Your task to perform on an android device: turn on improve location accuracy Image 0: 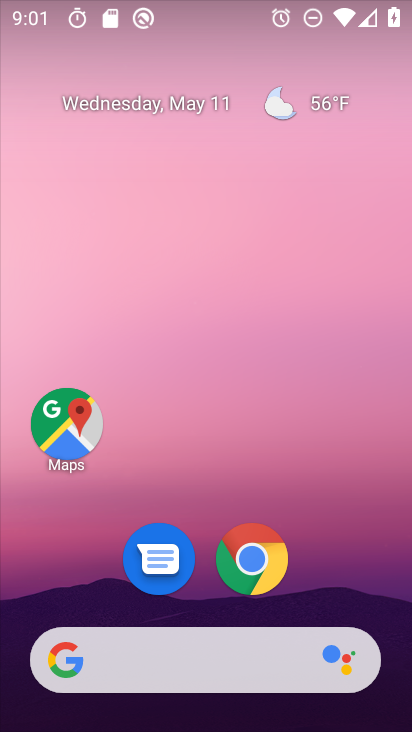
Step 0: drag from (283, 476) to (253, 79)
Your task to perform on an android device: turn on improve location accuracy Image 1: 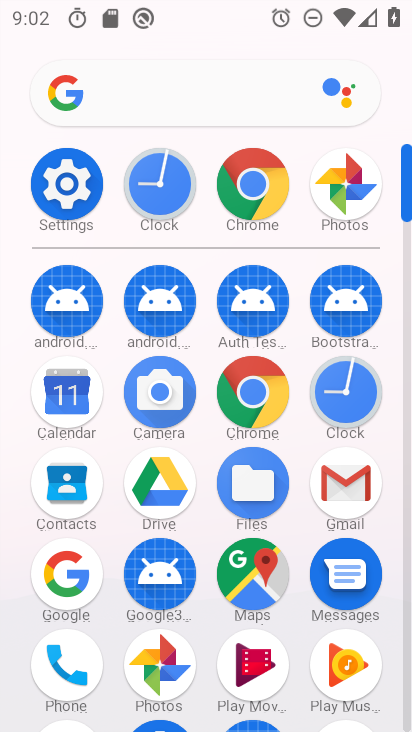
Step 1: click (58, 176)
Your task to perform on an android device: turn on improve location accuracy Image 2: 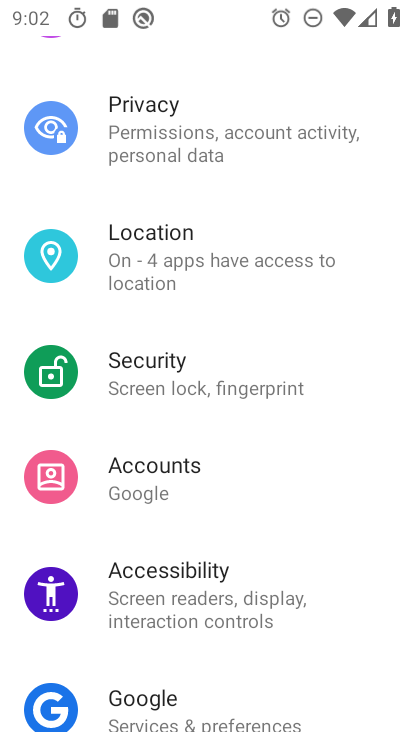
Step 2: click (182, 251)
Your task to perform on an android device: turn on improve location accuracy Image 3: 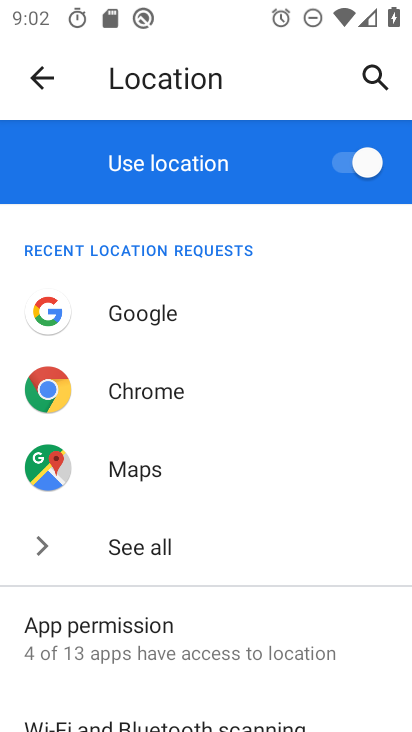
Step 3: drag from (313, 587) to (343, 323)
Your task to perform on an android device: turn on improve location accuracy Image 4: 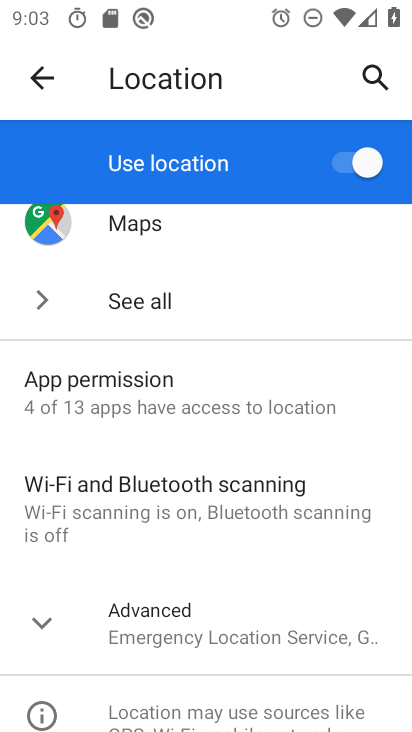
Step 4: click (212, 619)
Your task to perform on an android device: turn on improve location accuracy Image 5: 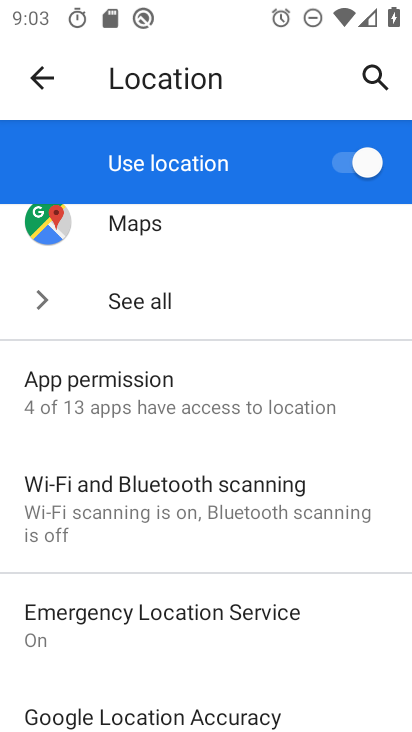
Step 5: drag from (227, 645) to (270, 389)
Your task to perform on an android device: turn on improve location accuracy Image 6: 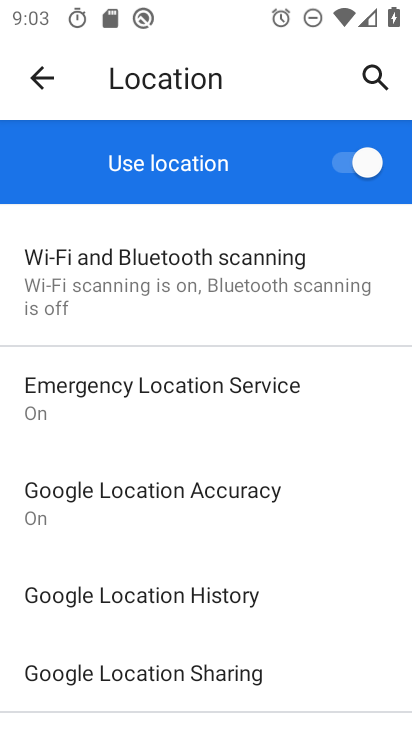
Step 6: click (213, 494)
Your task to perform on an android device: turn on improve location accuracy Image 7: 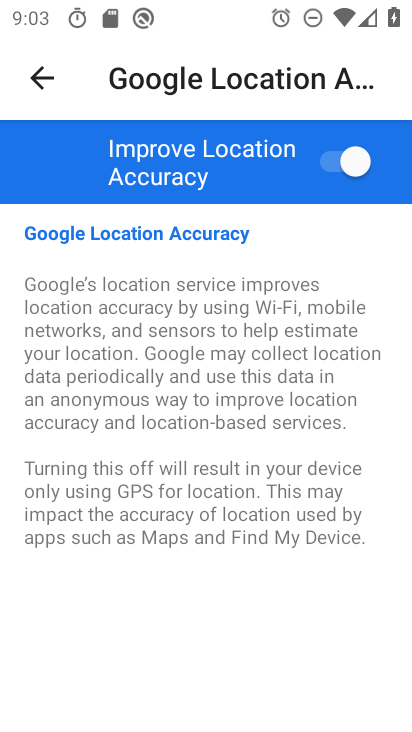
Step 7: task complete